Your task to perform on an android device: Open wifi settings Image 0: 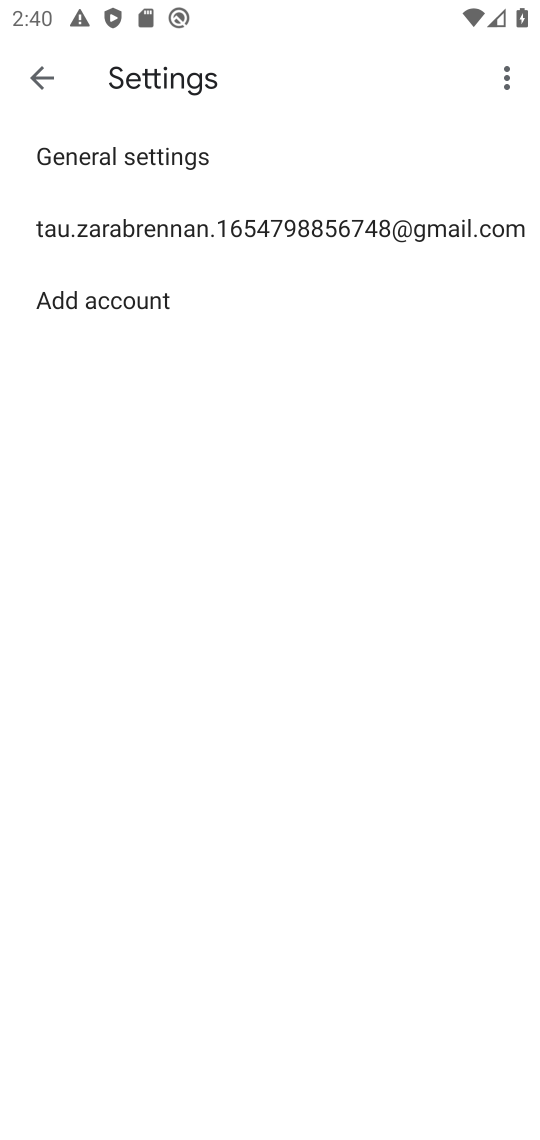
Step 0: press home button
Your task to perform on an android device: Open wifi settings Image 1: 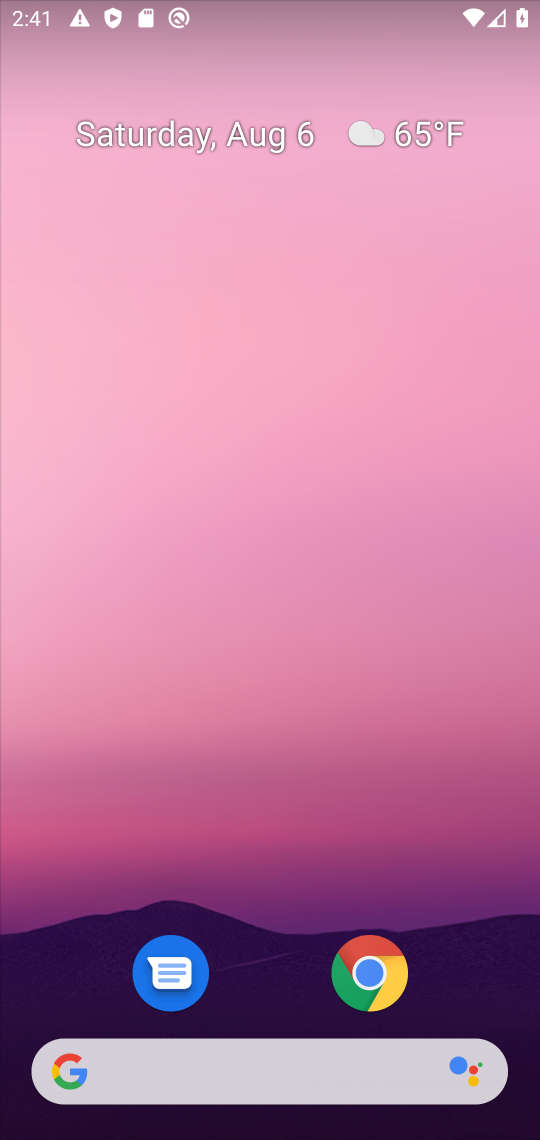
Step 1: drag from (277, 965) to (291, 156)
Your task to perform on an android device: Open wifi settings Image 2: 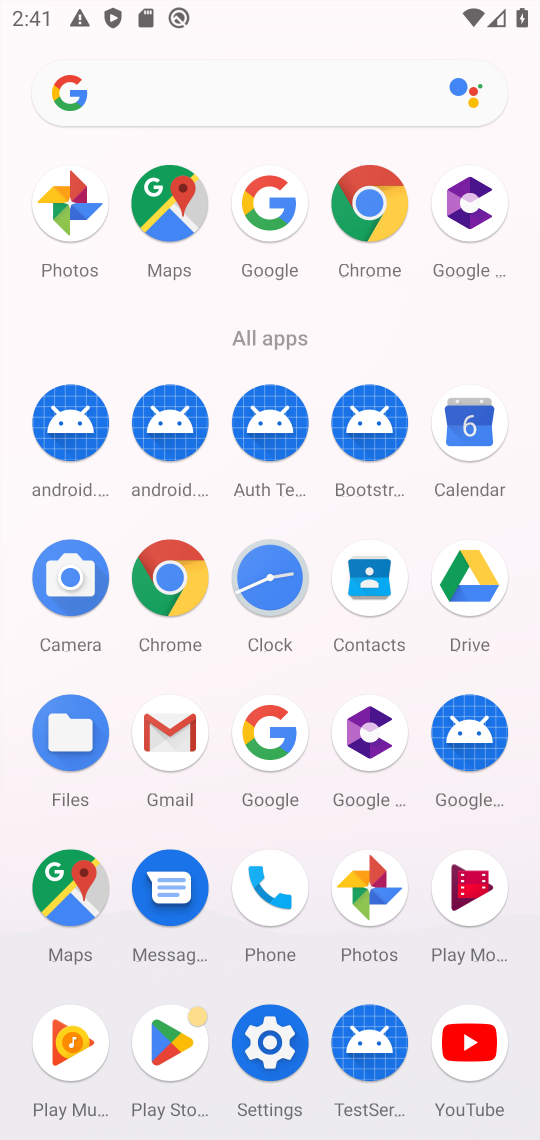
Step 2: click (261, 1035)
Your task to perform on an android device: Open wifi settings Image 3: 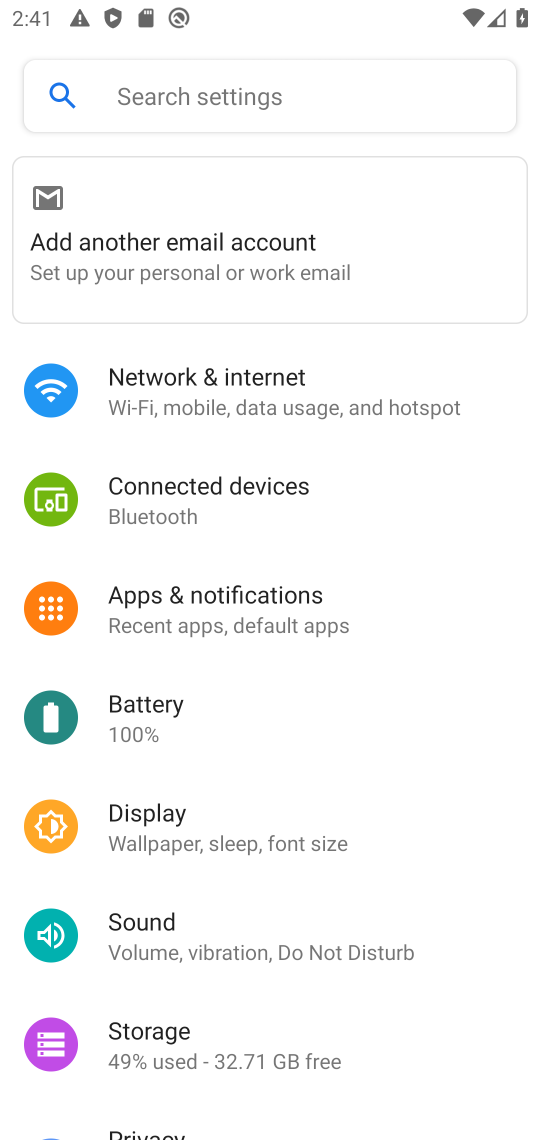
Step 3: click (312, 388)
Your task to perform on an android device: Open wifi settings Image 4: 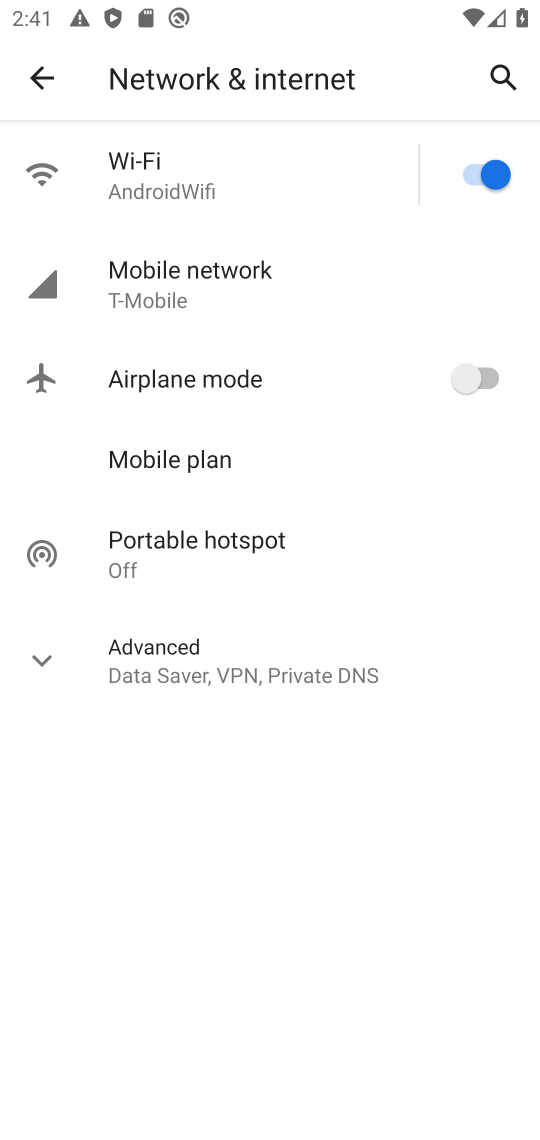
Step 4: click (185, 186)
Your task to perform on an android device: Open wifi settings Image 5: 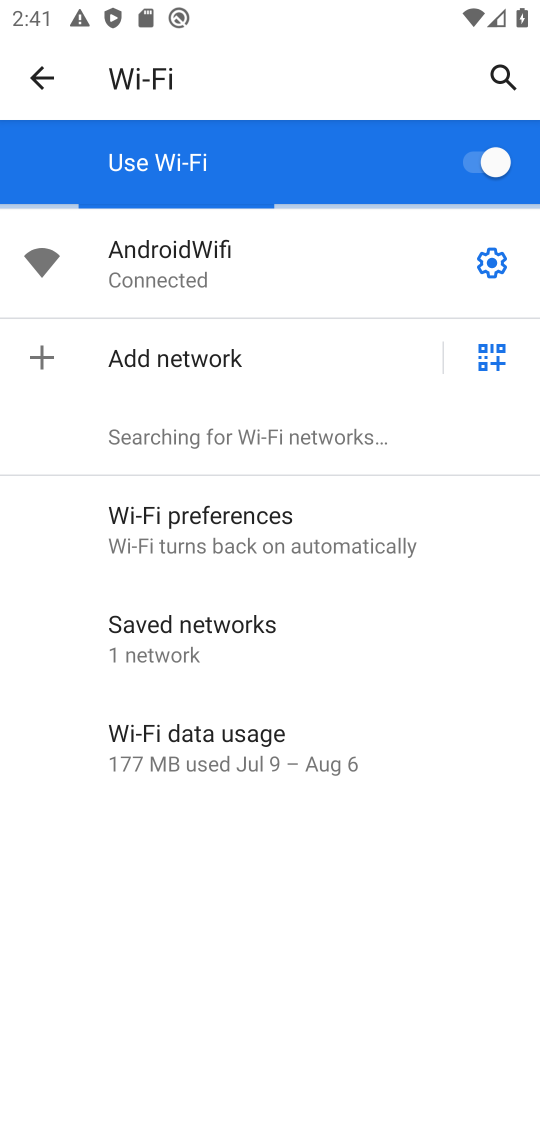
Step 5: task complete